Your task to perform on an android device: Open Yahoo.com Image 0: 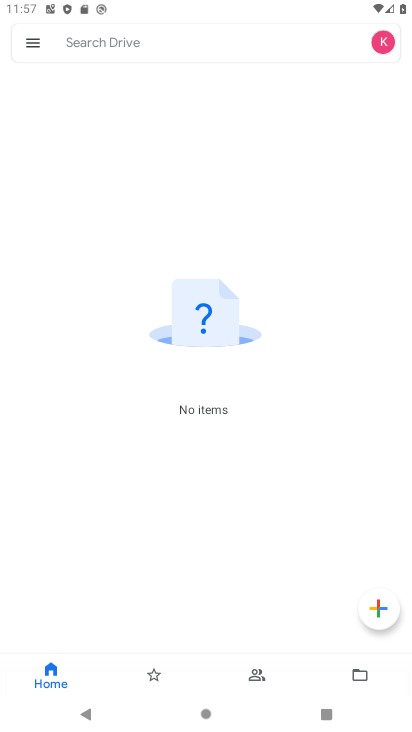
Step 0: press home button
Your task to perform on an android device: Open Yahoo.com Image 1: 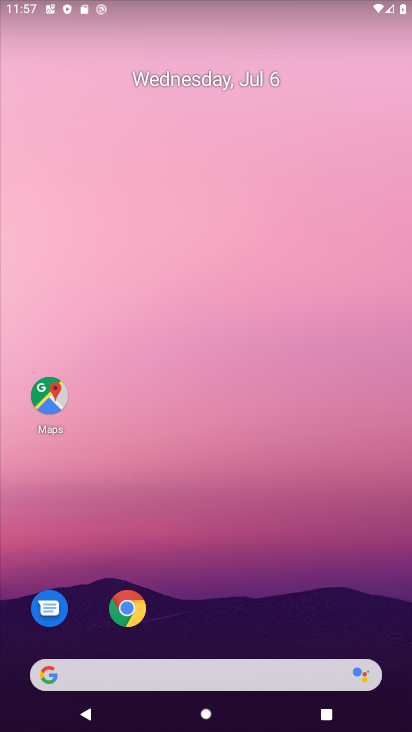
Step 1: click (137, 632)
Your task to perform on an android device: Open Yahoo.com Image 2: 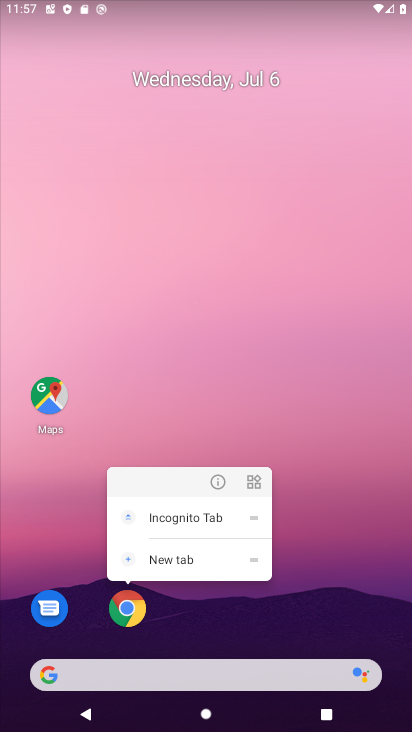
Step 2: click (131, 617)
Your task to perform on an android device: Open Yahoo.com Image 3: 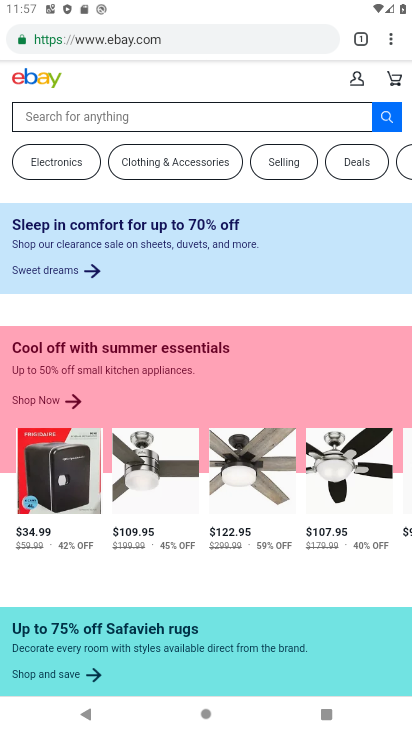
Step 3: click (360, 37)
Your task to perform on an android device: Open Yahoo.com Image 4: 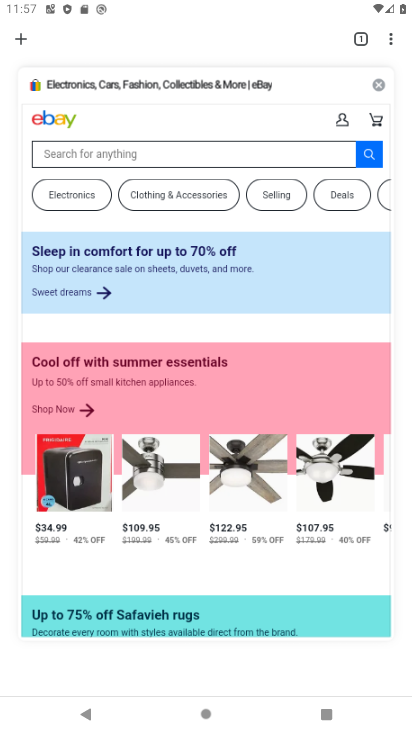
Step 4: click (378, 82)
Your task to perform on an android device: Open Yahoo.com Image 5: 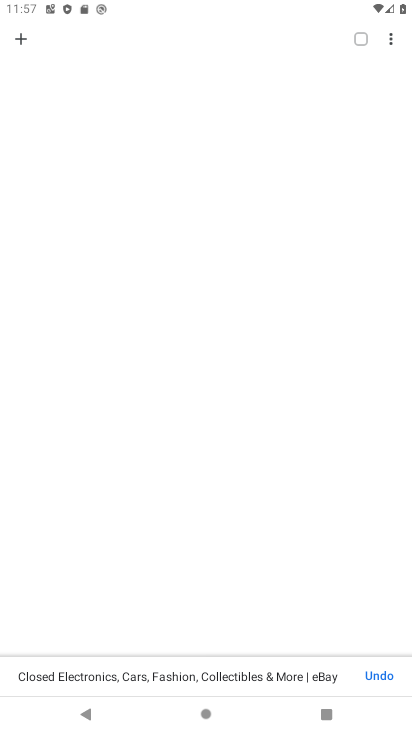
Step 5: click (22, 45)
Your task to perform on an android device: Open Yahoo.com Image 6: 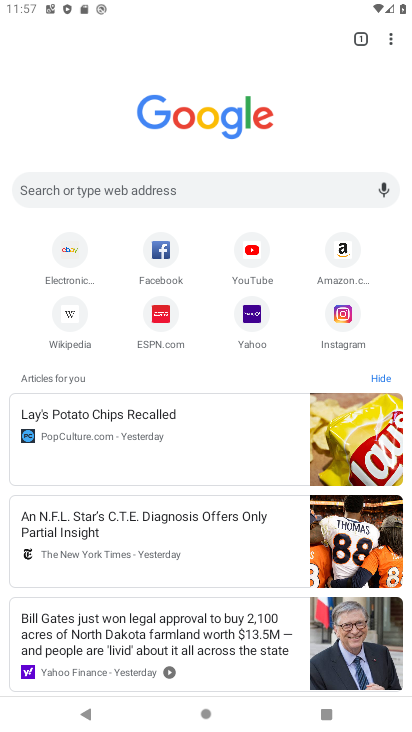
Step 6: click (247, 322)
Your task to perform on an android device: Open Yahoo.com Image 7: 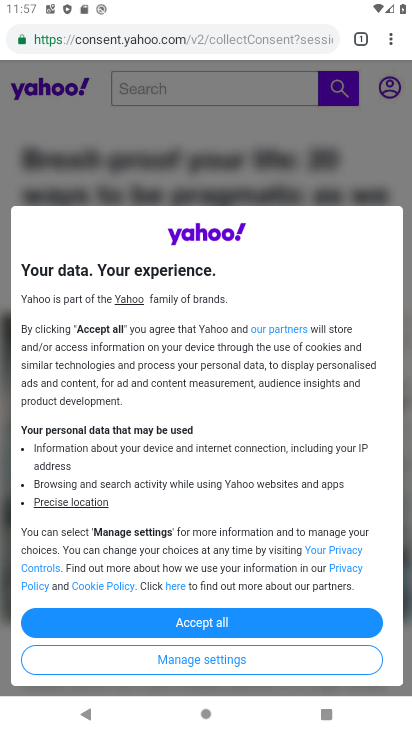
Step 7: click (165, 193)
Your task to perform on an android device: Open Yahoo.com Image 8: 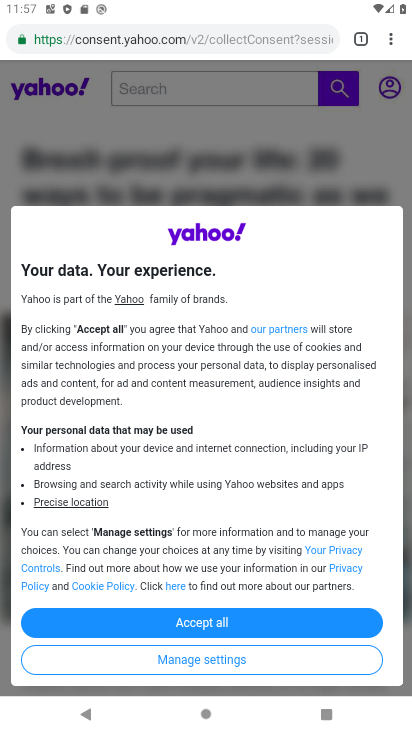
Step 8: task complete